Your task to perform on an android device: turn smart compose on in the gmail app Image 0: 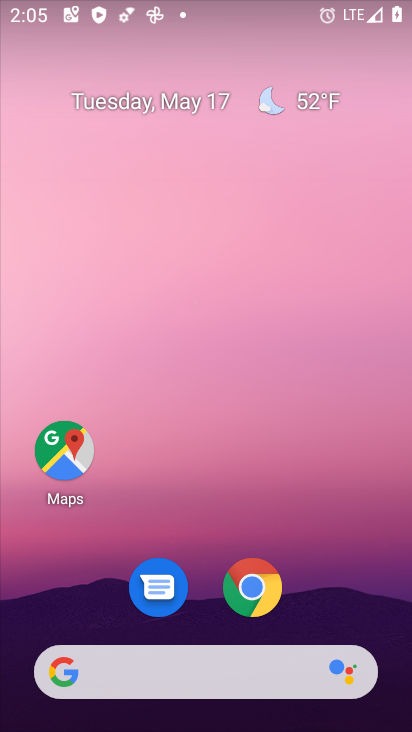
Step 0: drag from (338, 619) to (263, 149)
Your task to perform on an android device: turn smart compose on in the gmail app Image 1: 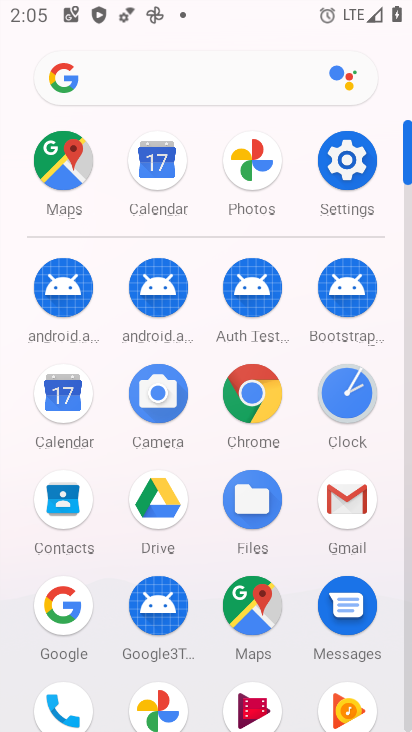
Step 1: click (323, 498)
Your task to perform on an android device: turn smart compose on in the gmail app Image 2: 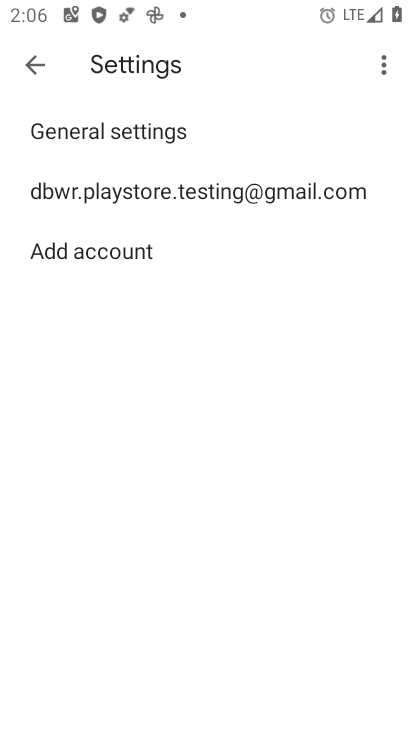
Step 2: click (101, 186)
Your task to perform on an android device: turn smart compose on in the gmail app Image 3: 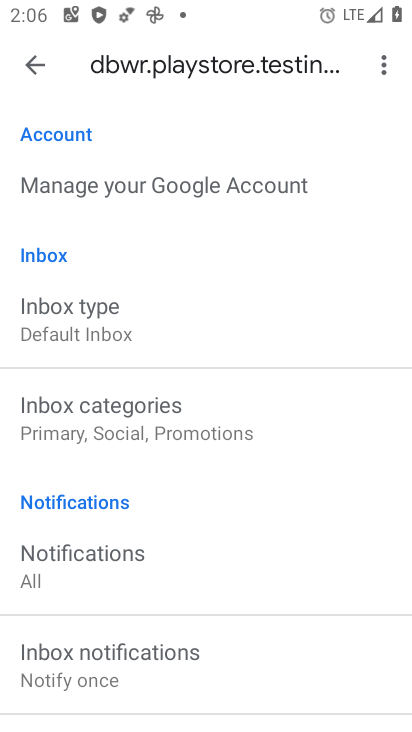
Step 3: drag from (136, 530) to (134, 262)
Your task to perform on an android device: turn smart compose on in the gmail app Image 4: 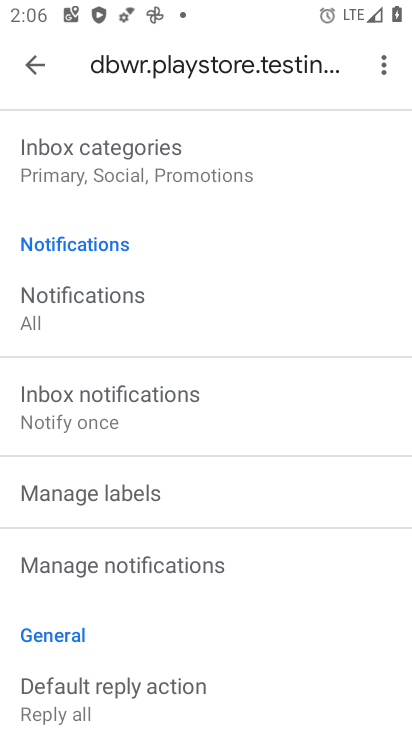
Step 4: drag from (174, 573) to (161, 457)
Your task to perform on an android device: turn smart compose on in the gmail app Image 5: 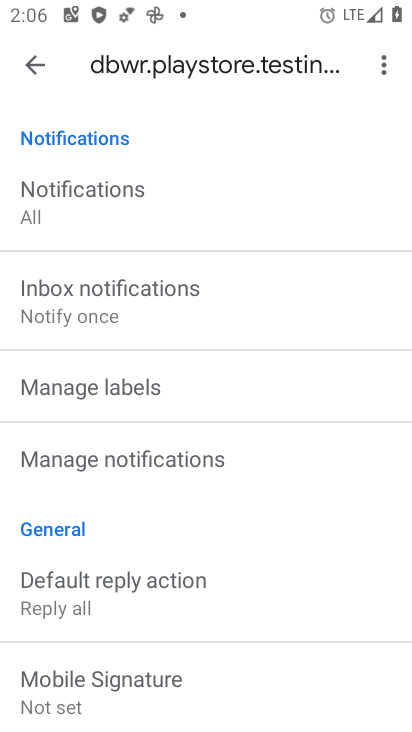
Step 5: drag from (315, 698) to (282, 296)
Your task to perform on an android device: turn smart compose on in the gmail app Image 6: 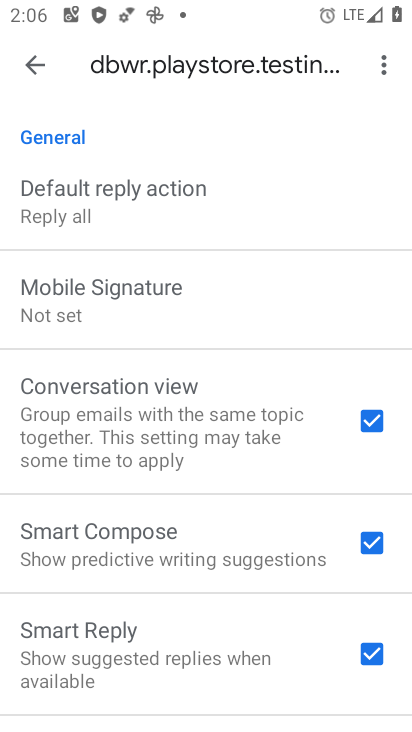
Step 6: click (334, 540)
Your task to perform on an android device: turn smart compose on in the gmail app Image 7: 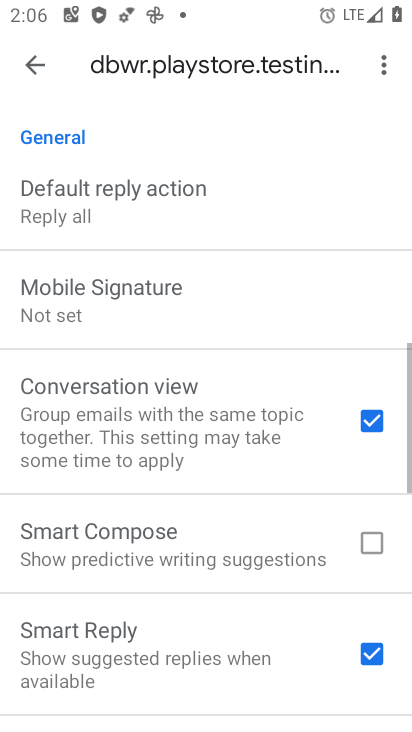
Step 7: task complete